Your task to perform on an android device: Open Yahoo.com Image 0: 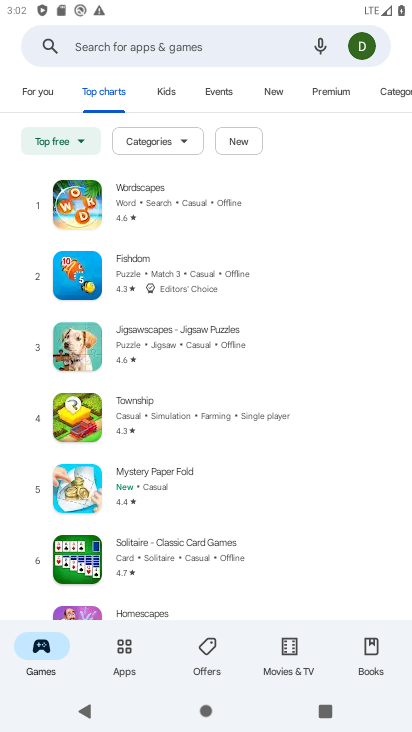
Step 0: press home button
Your task to perform on an android device: Open Yahoo.com Image 1: 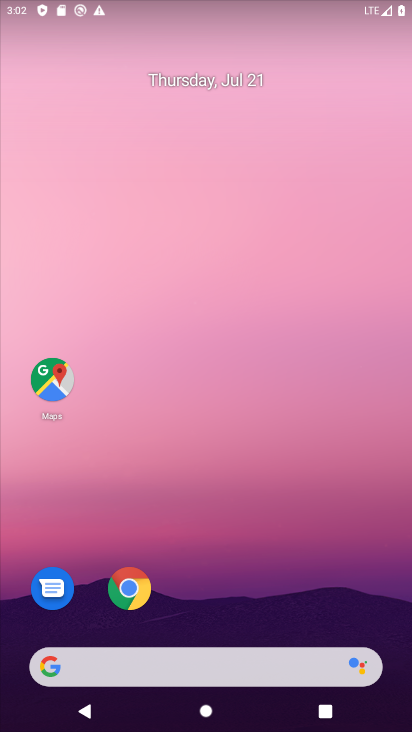
Step 1: click (133, 580)
Your task to perform on an android device: Open Yahoo.com Image 2: 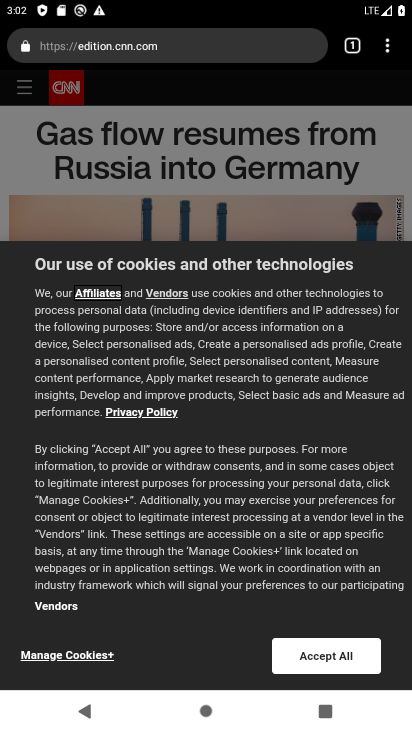
Step 2: click (178, 41)
Your task to perform on an android device: Open Yahoo.com Image 3: 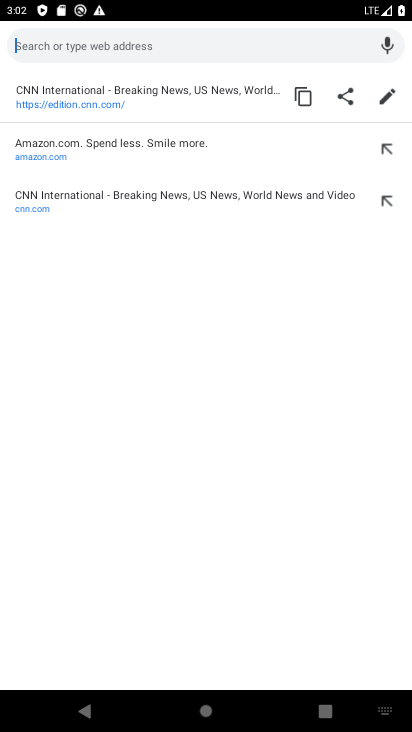
Step 3: type "yahoo.com"
Your task to perform on an android device: Open Yahoo.com Image 4: 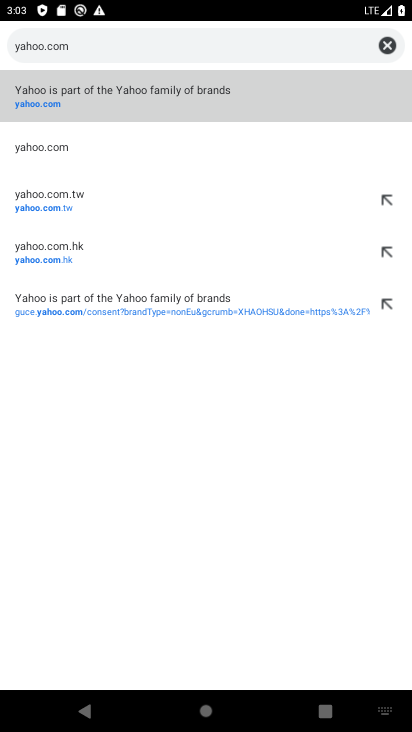
Step 4: click (91, 105)
Your task to perform on an android device: Open Yahoo.com Image 5: 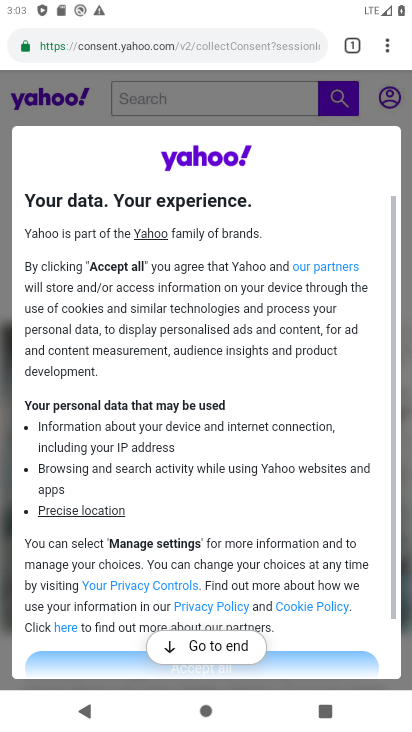
Step 5: task complete